Your task to perform on an android device: Open the stopwatch Image 0: 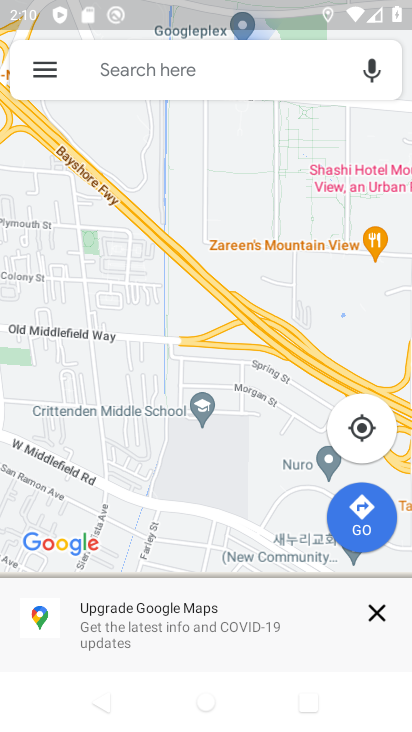
Step 0: press home button
Your task to perform on an android device: Open the stopwatch Image 1: 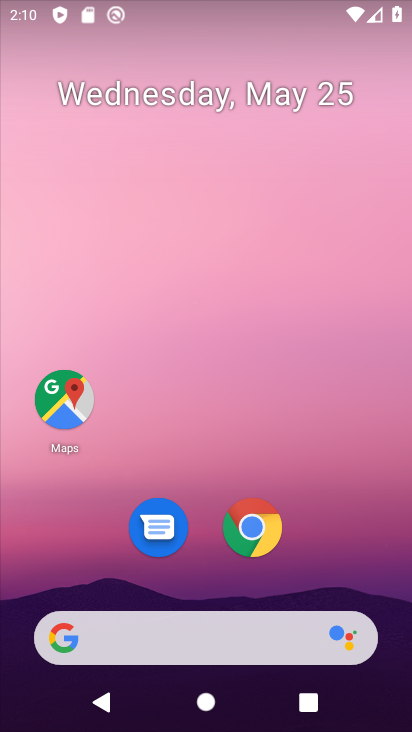
Step 1: drag from (191, 626) to (271, 182)
Your task to perform on an android device: Open the stopwatch Image 2: 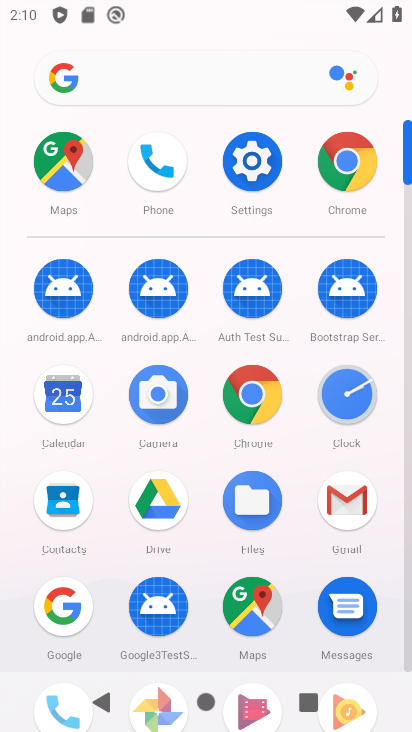
Step 2: click (358, 386)
Your task to perform on an android device: Open the stopwatch Image 3: 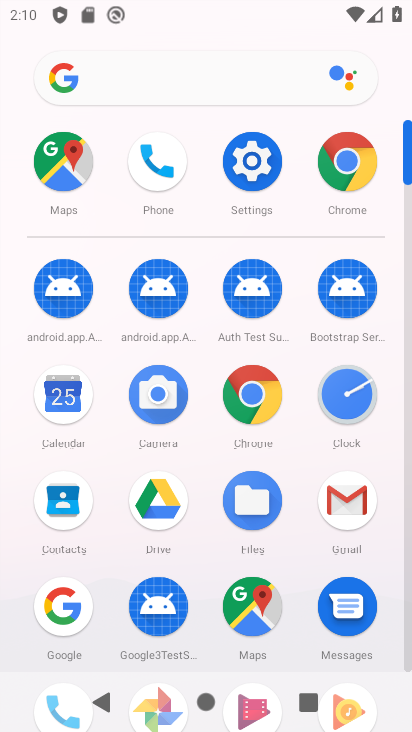
Step 3: click (358, 386)
Your task to perform on an android device: Open the stopwatch Image 4: 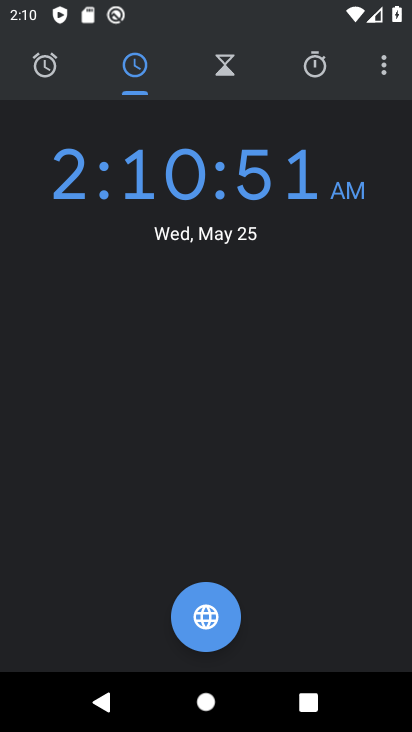
Step 4: click (306, 57)
Your task to perform on an android device: Open the stopwatch Image 5: 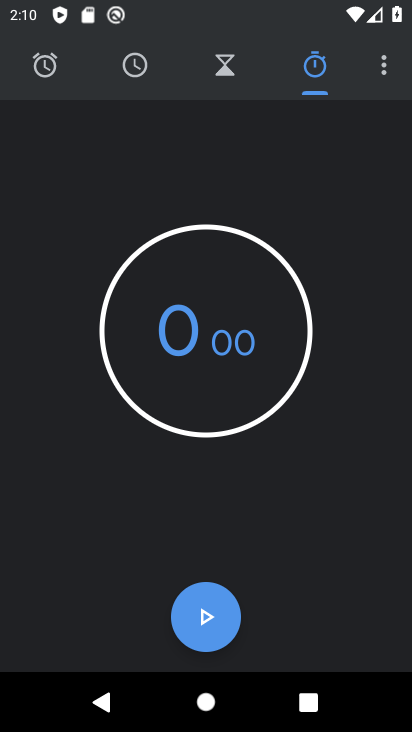
Step 5: click (216, 631)
Your task to perform on an android device: Open the stopwatch Image 6: 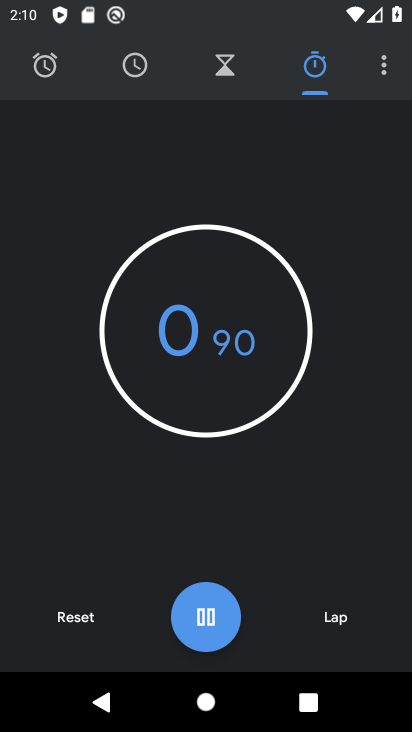
Step 6: task complete